Your task to perform on an android device: Open Wikipedia Image 0: 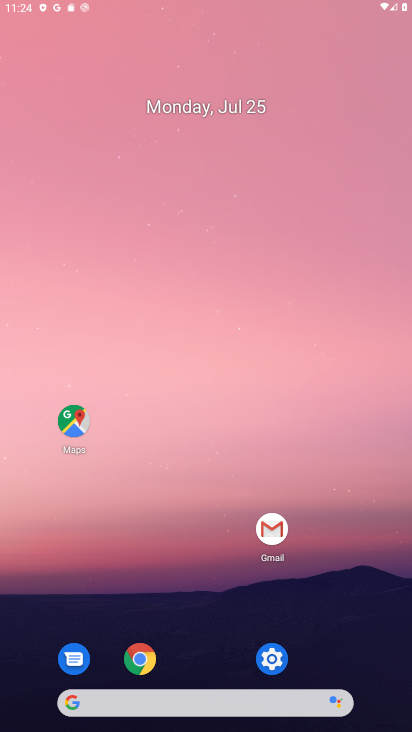
Step 0: click (260, 681)
Your task to perform on an android device: Open Wikipedia Image 1: 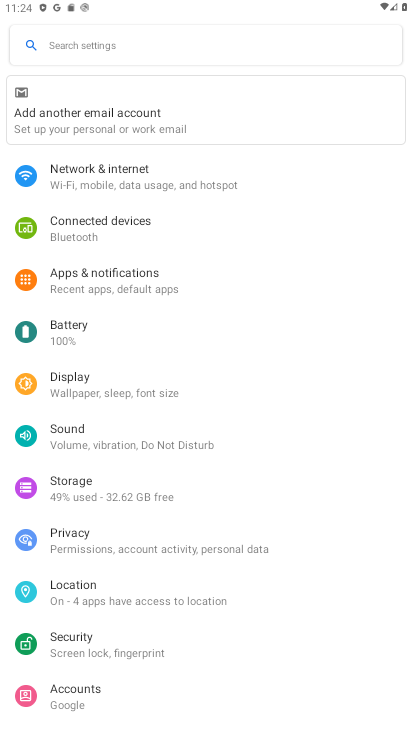
Step 1: press home button
Your task to perform on an android device: Open Wikipedia Image 2: 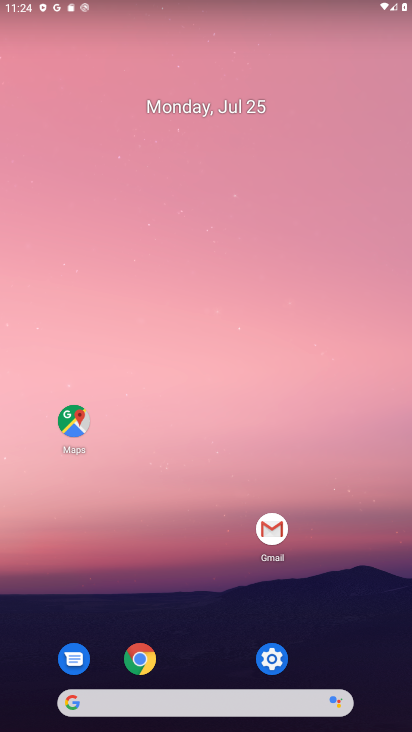
Step 2: click (158, 657)
Your task to perform on an android device: Open Wikipedia Image 3: 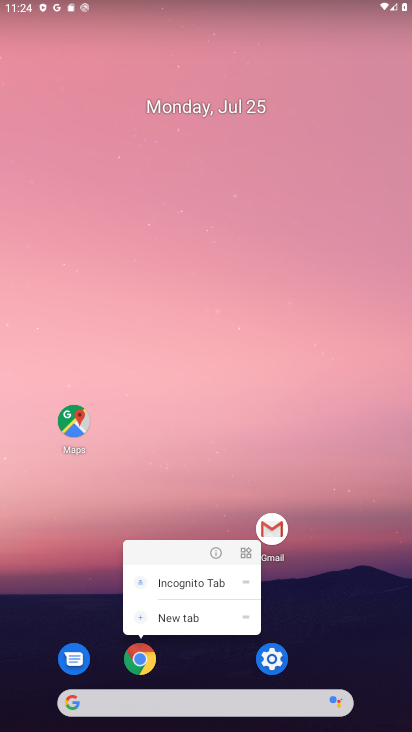
Step 3: click (153, 658)
Your task to perform on an android device: Open Wikipedia Image 4: 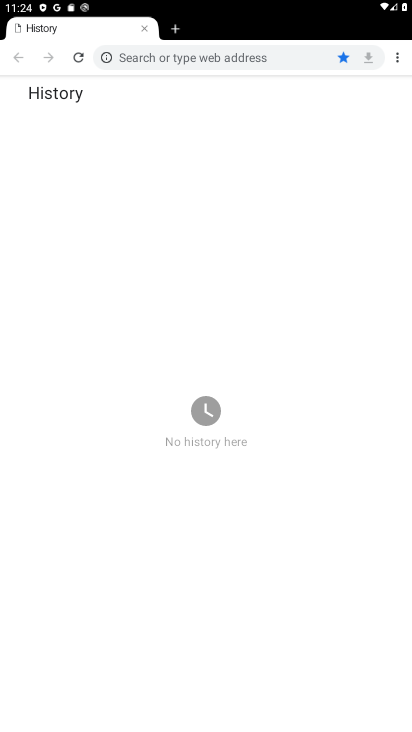
Step 4: click (177, 26)
Your task to perform on an android device: Open Wikipedia Image 5: 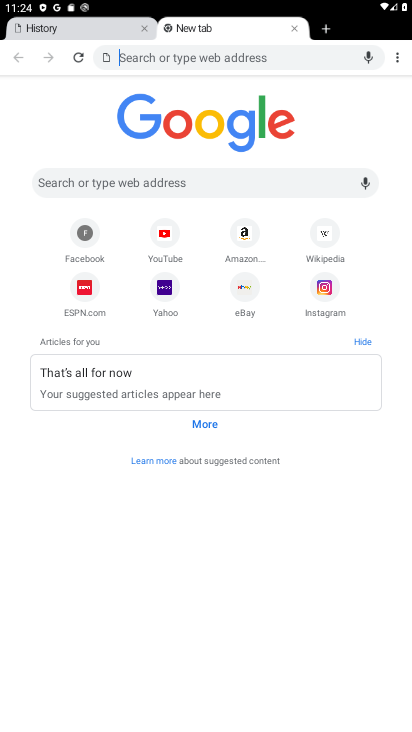
Step 5: click (310, 242)
Your task to perform on an android device: Open Wikipedia Image 6: 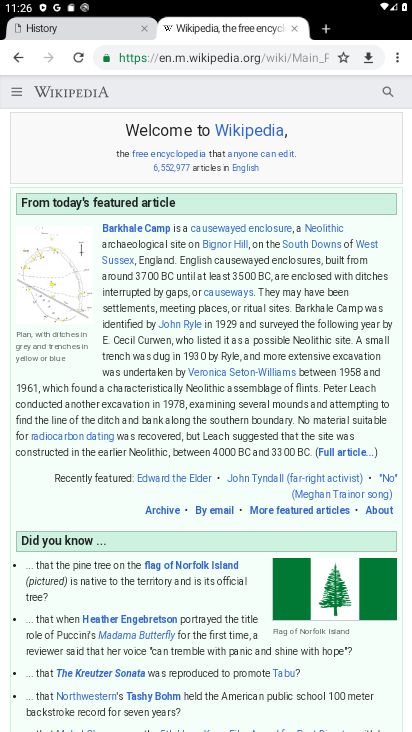
Step 6: task complete